Your task to perform on an android device: What's on my calendar today? Image 0: 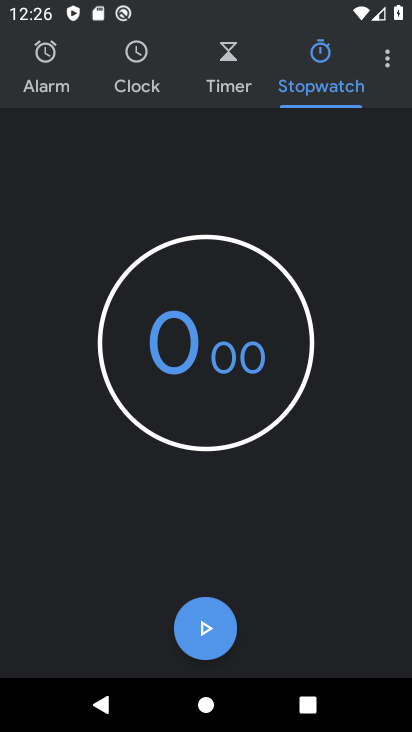
Step 0: press home button
Your task to perform on an android device: What's on my calendar today? Image 1: 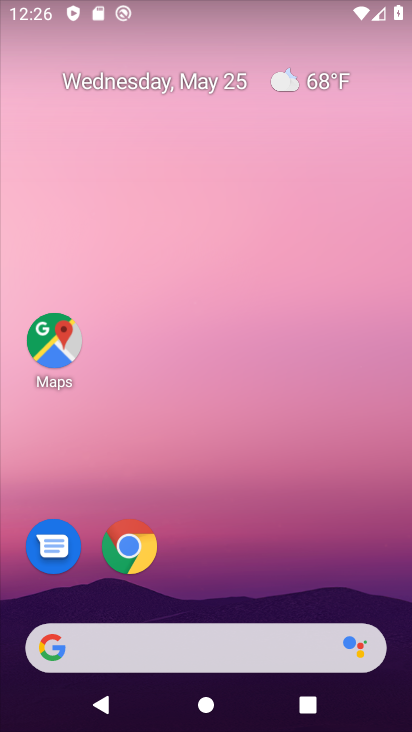
Step 1: drag from (230, 580) to (227, 127)
Your task to perform on an android device: What's on my calendar today? Image 2: 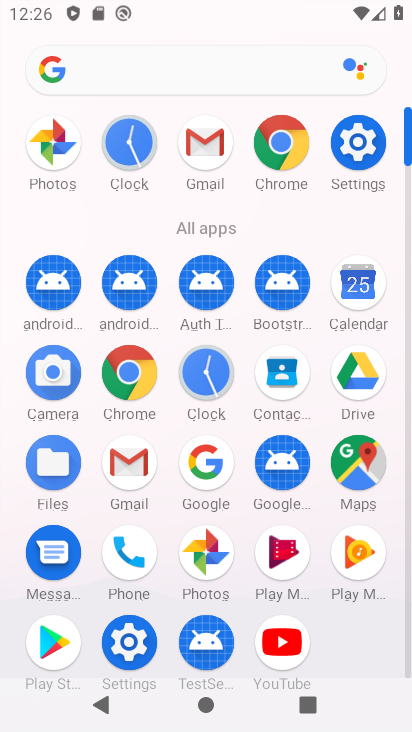
Step 2: click (352, 291)
Your task to perform on an android device: What's on my calendar today? Image 3: 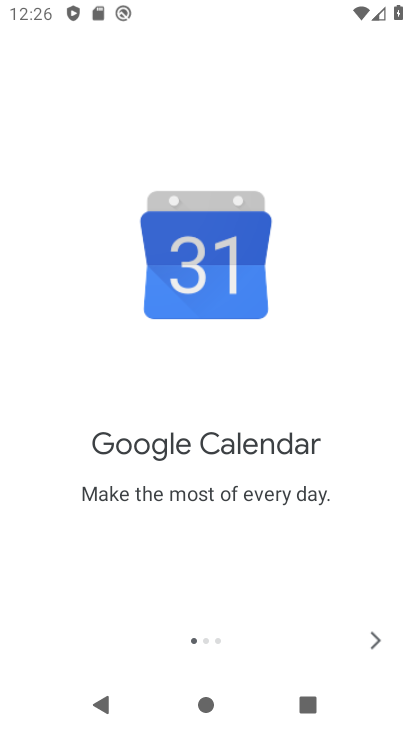
Step 3: click (369, 636)
Your task to perform on an android device: What's on my calendar today? Image 4: 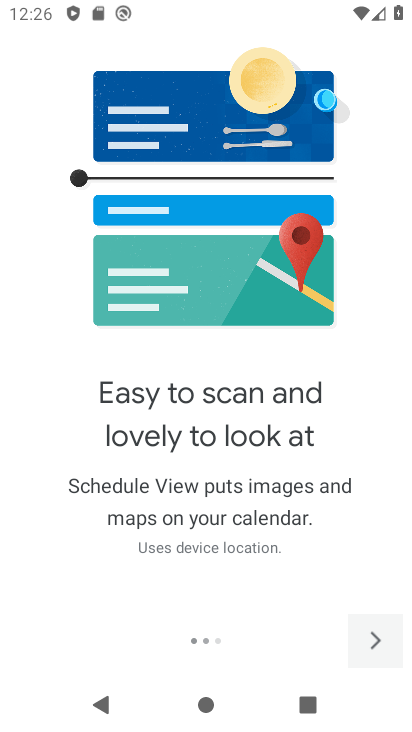
Step 4: click (369, 636)
Your task to perform on an android device: What's on my calendar today? Image 5: 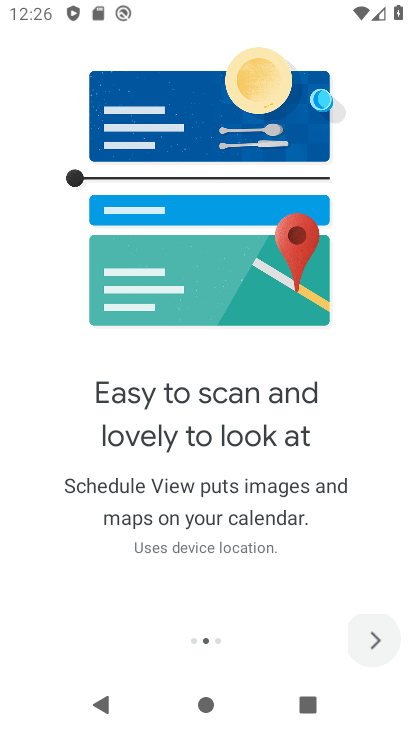
Step 5: click (369, 636)
Your task to perform on an android device: What's on my calendar today? Image 6: 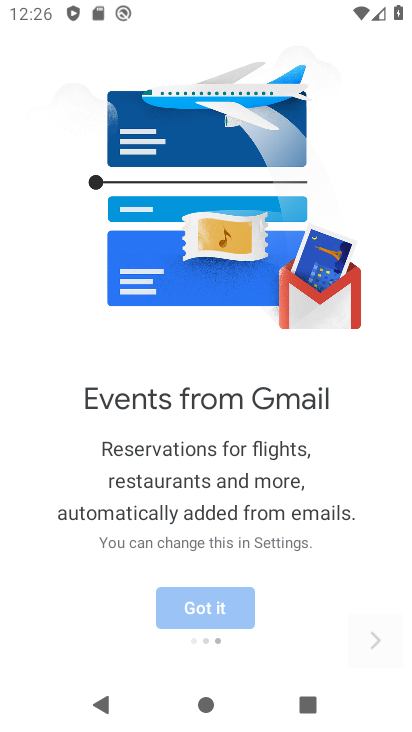
Step 6: click (369, 636)
Your task to perform on an android device: What's on my calendar today? Image 7: 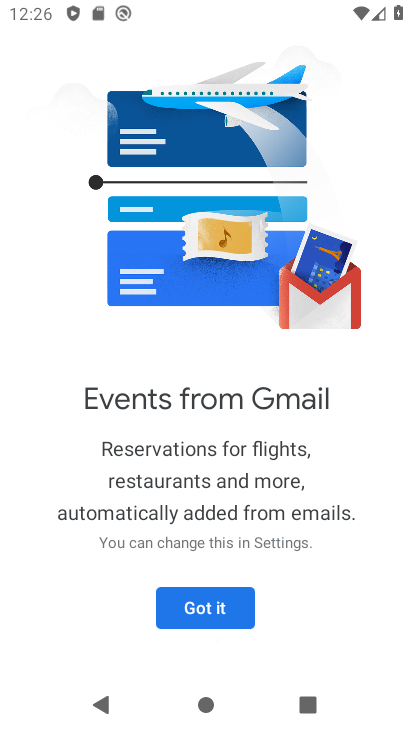
Step 7: click (369, 636)
Your task to perform on an android device: What's on my calendar today? Image 8: 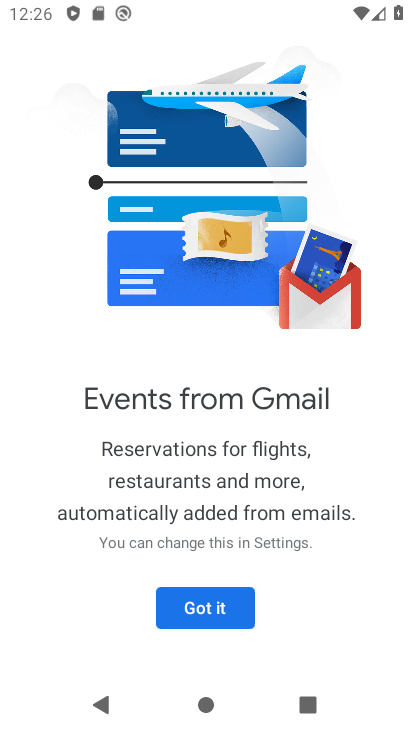
Step 8: click (177, 605)
Your task to perform on an android device: What's on my calendar today? Image 9: 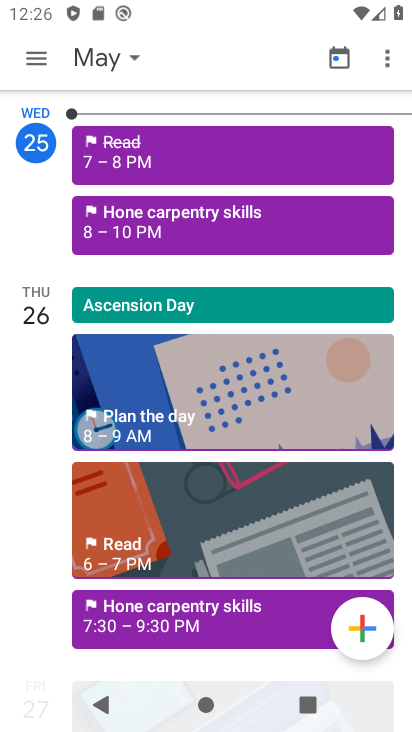
Step 9: task complete